Your task to perform on an android device: refresh tabs in the chrome app Image 0: 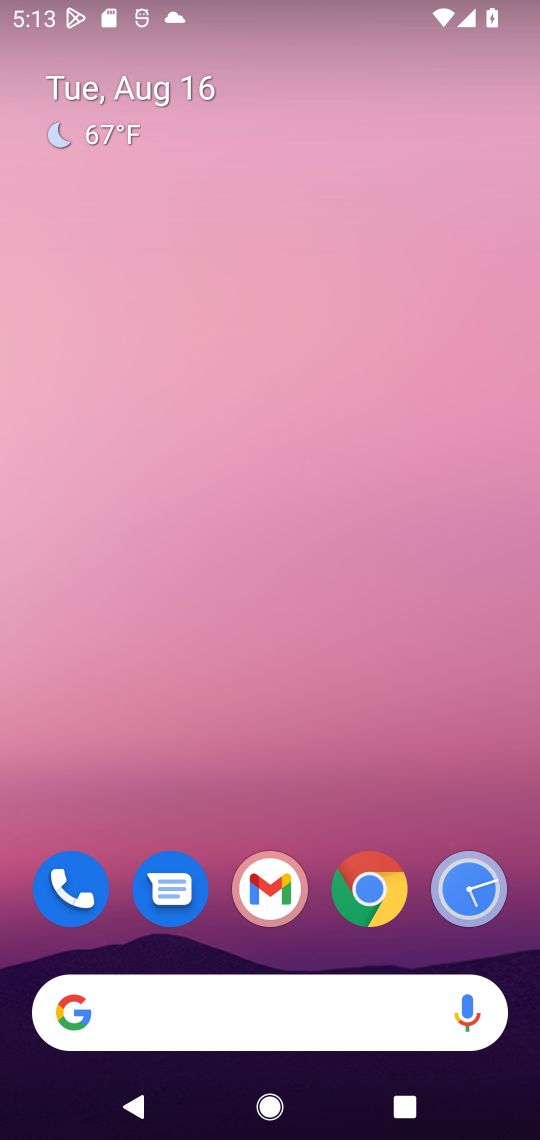
Step 0: click (348, 889)
Your task to perform on an android device: refresh tabs in the chrome app Image 1: 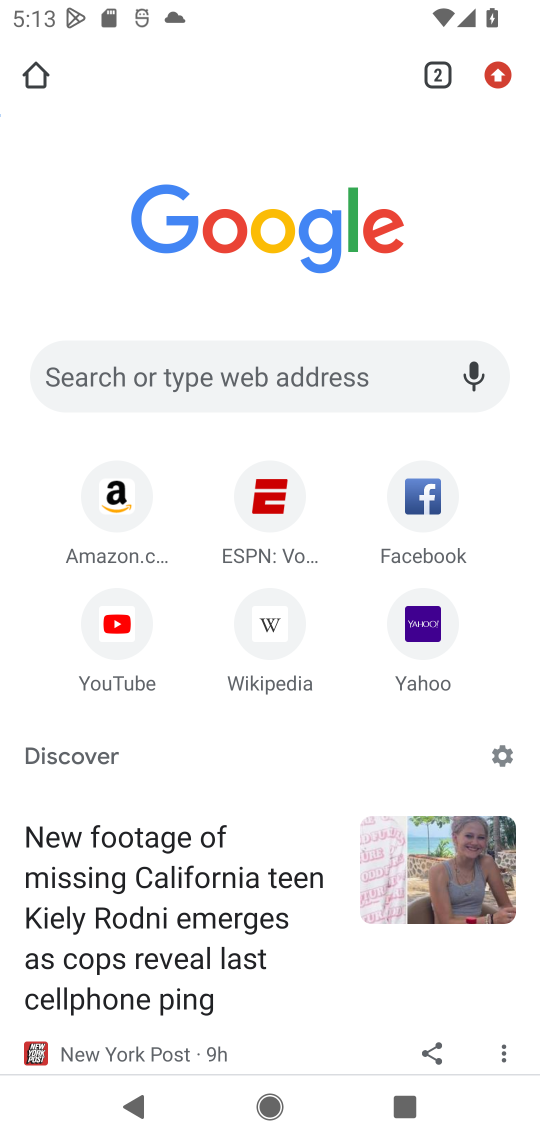
Step 1: task complete